Your task to perform on an android device: add a label to a message in the gmail app Image 0: 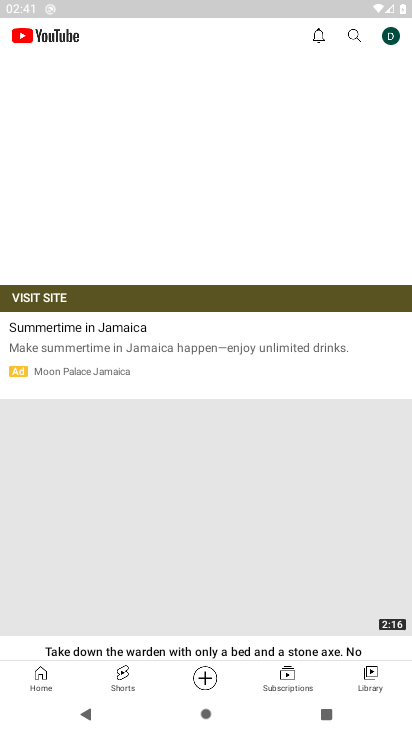
Step 0: press home button
Your task to perform on an android device: add a label to a message in the gmail app Image 1: 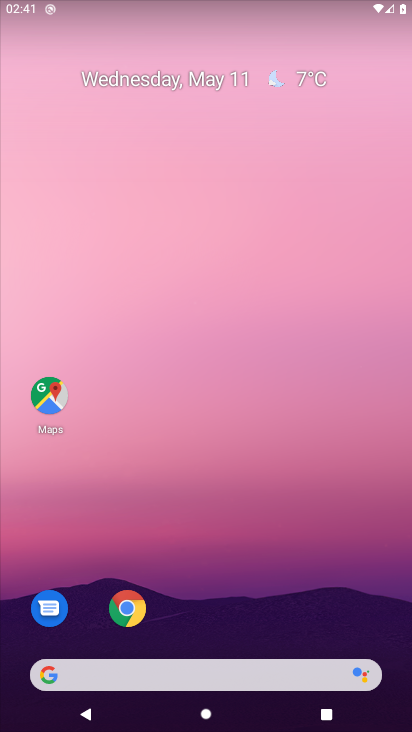
Step 1: drag from (224, 643) to (246, 158)
Your task to perform on an android device: add a label to a message in the gmail app Image 2: 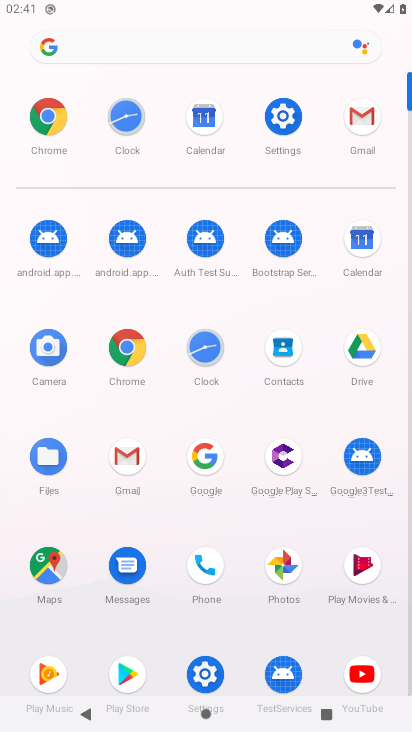
Step 2: click (368, 115)
Your task to perform on an android device: add a label to a message in the gmail app Image 3: 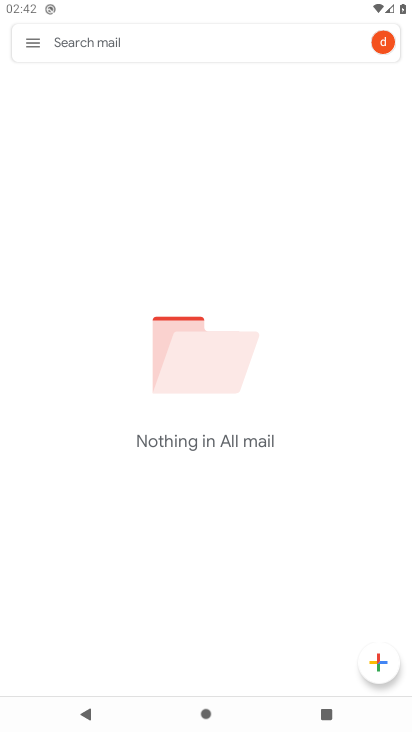
Step 3: press home button
Your task to perform on an android device: add a label to a message in the gmail app Image 4: 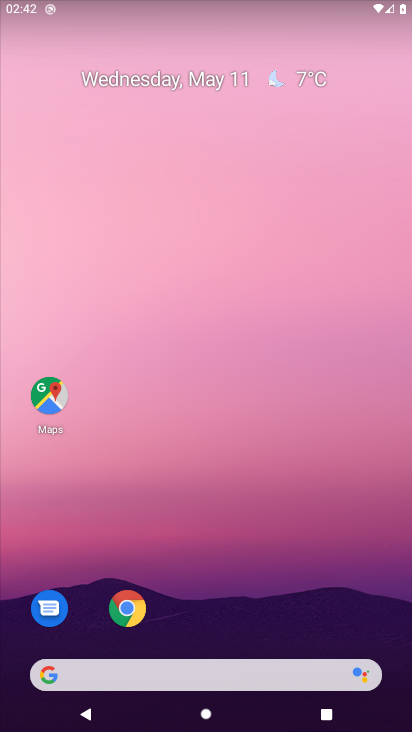
Step 4: drag from (208, 633) to (258, 105)
Your task to perform on an android device: add a label to a message in the gmail app Image 5: 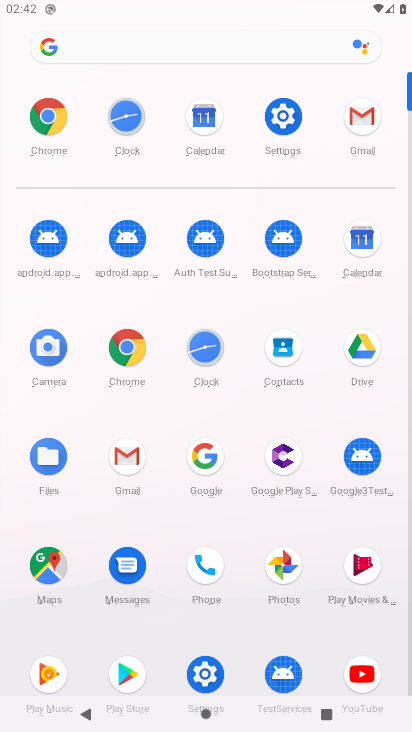
Step 5: click (129, 458)
Your task to perform on an android device: add a label to a message in the gmail app Image 6: 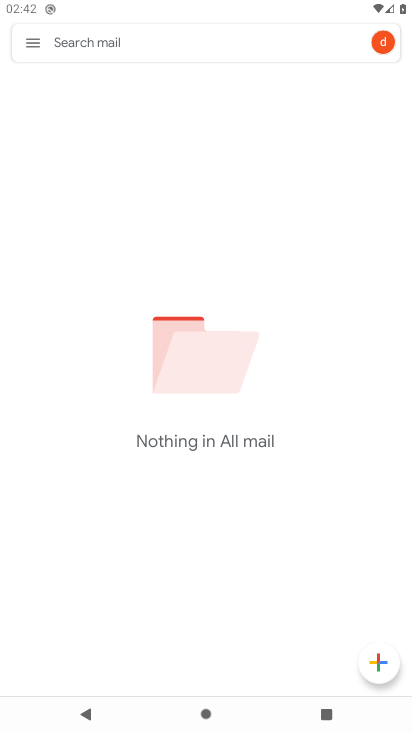
Step 6: click (32, 41)
Your task to perform on an android device: add a label to a message in the gmail app Image 7: 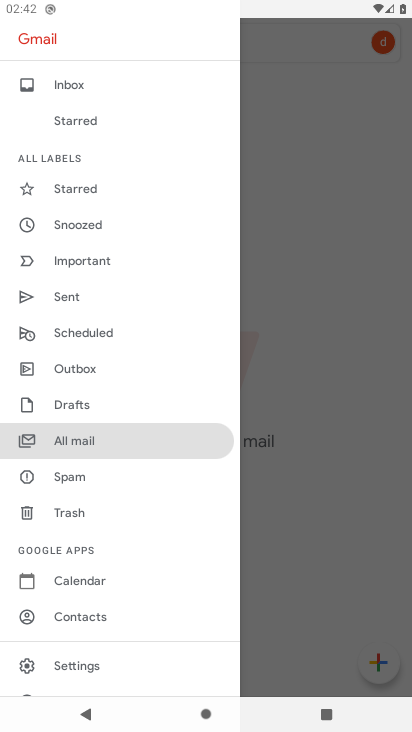
Step 7: click (81, 442)
Your task to perform on an android device: add a label to a message in the gmail app Image 8: 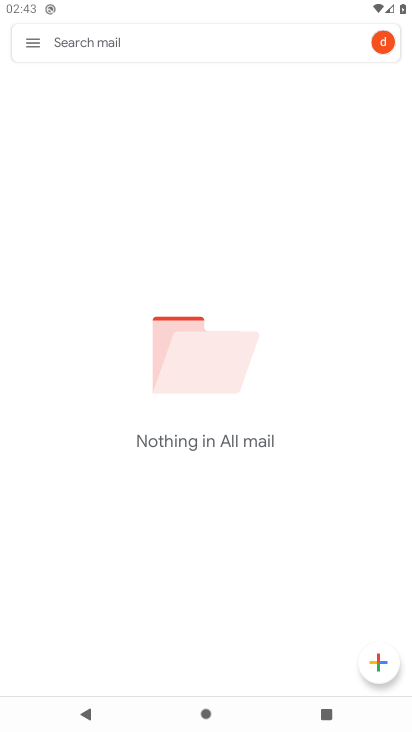
Step 8: task complete